Your task to perform on an android device: set default search engine in the chrome app Image 0: 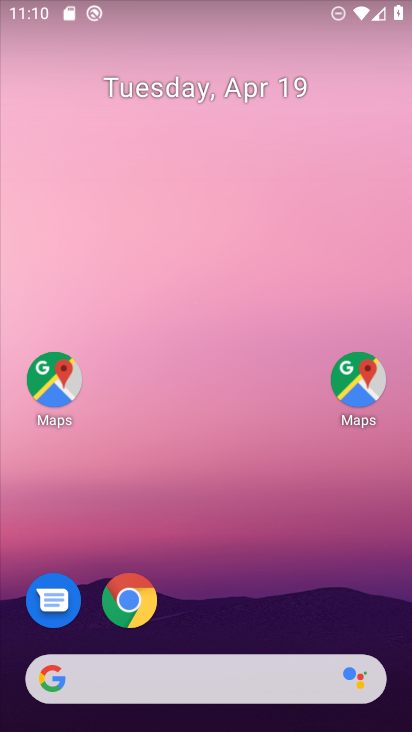
Step 0: drag from (280, 676) to (325, 2)
Your task to perform on an android device: set default search engine in the chrome app Image 1: 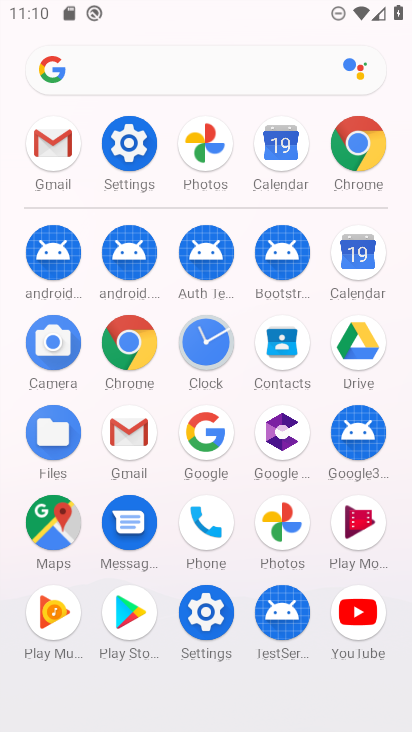
Step 1: click (144, 340)
Your task to perform on an android device: set default search engine in the chrome app Image 2: 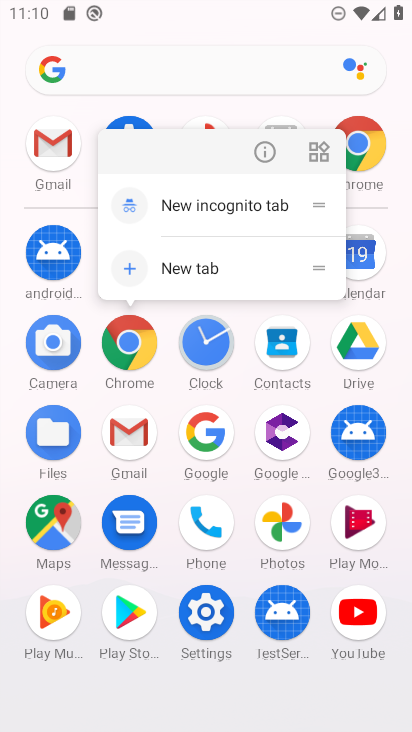
Step 2: click (141, 344)
Your task to perform on an android device: set default search engine in the chrome app Image 3: 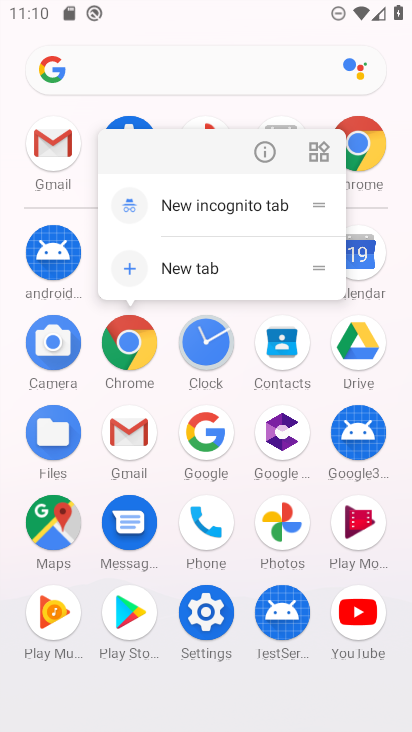
Step 3: click (115, 350)
Your task to perform on an android device: set default search engine in the chrome app Image 4: 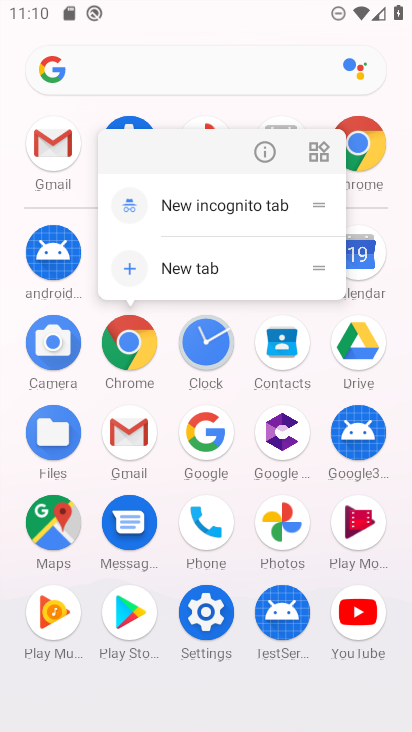
Step 4: click (115, 348)
Your task to perform on an android device: set default search engine in the chrome app Image 5: 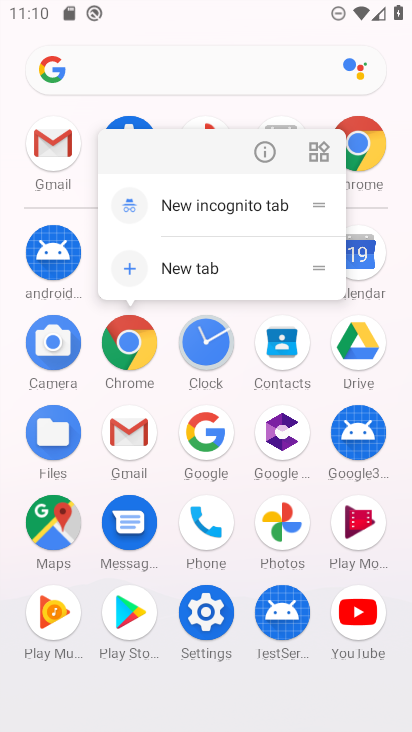
Step 5: click (126, 346)
Your task to perform on an android device: set default search engine in the chrome app Image 6: 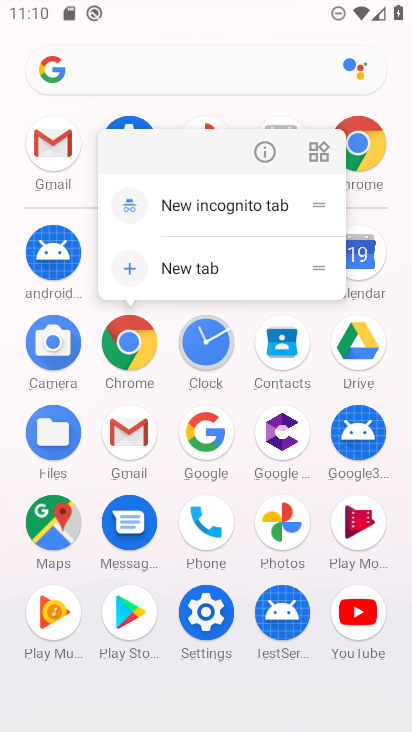
Step 6: click (126, 346)
Your task to perform on an android device: set default search engine in the chrome app Image 7: 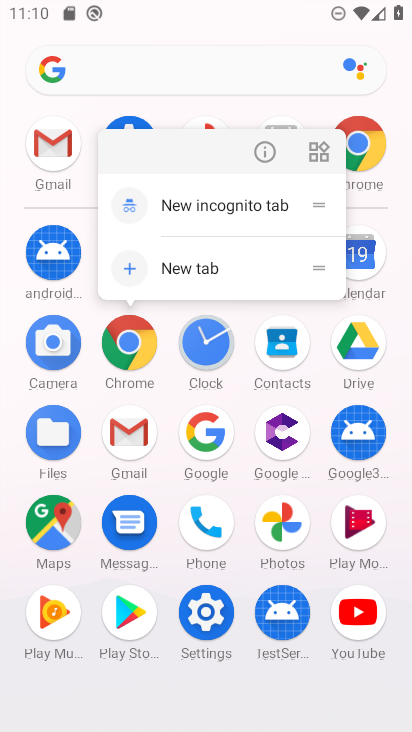
Step 7: click (126, 346)
Your task to perform on an android device: set default search engine in the chrome app Image 8: 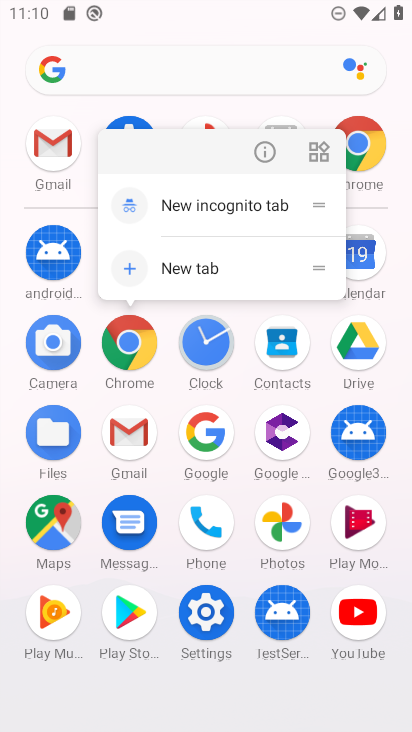
Step 8: click (126, 346)
Your task to perform on an android device: set default search engine in the chrome app Image 9: 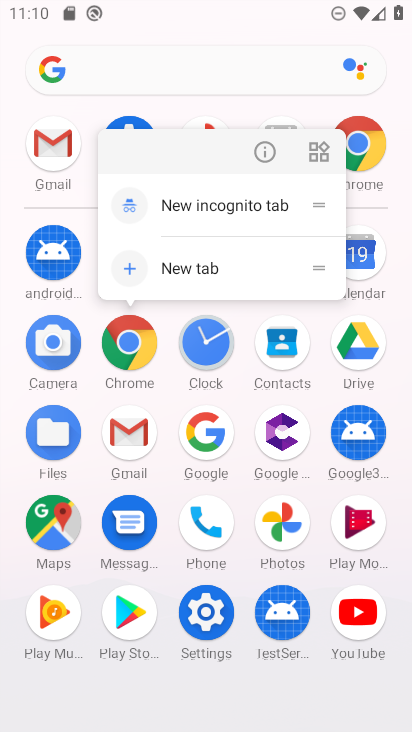
Step 9: click (136, 347)
Your task to perform on an android device: set default search engine in the chrome app Image 10: 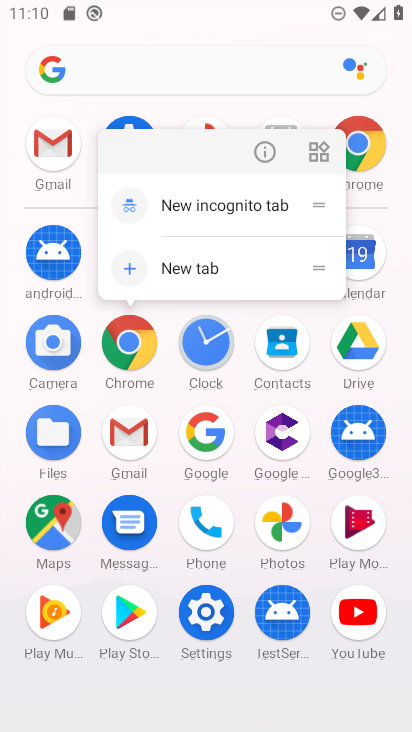
Step 10: click (136, 347)
Your task to perform on an android device: set default search engine in the chrome app Image 11: 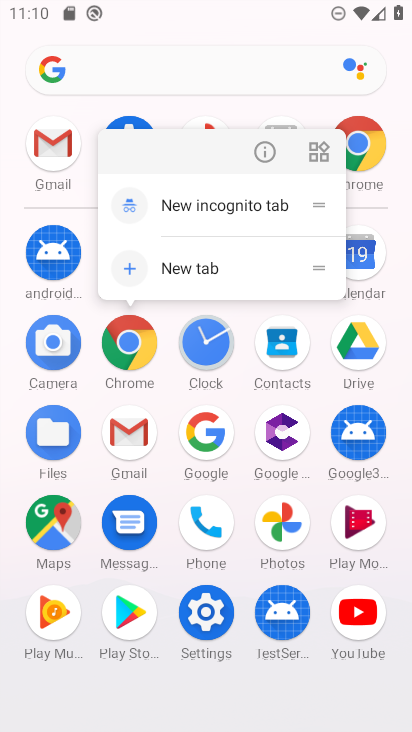
Step 11: click (136, 347)
Your task to perform on an android device: set default search engine in the chrome app Image 12: 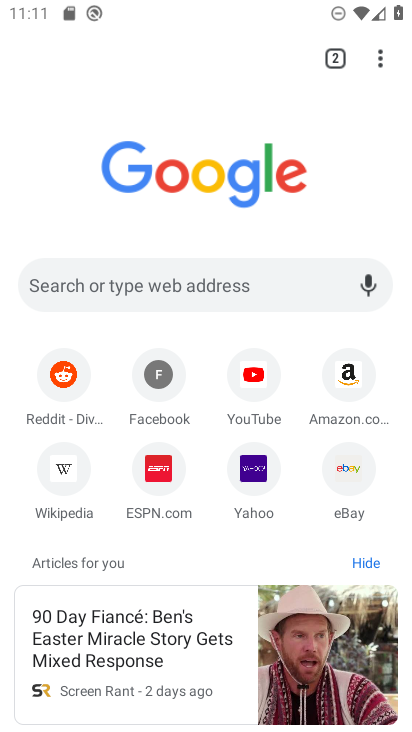
Step 12: click (387, 55)
Your task to perform on an android device: set default search engine in the chrome app Image 13: 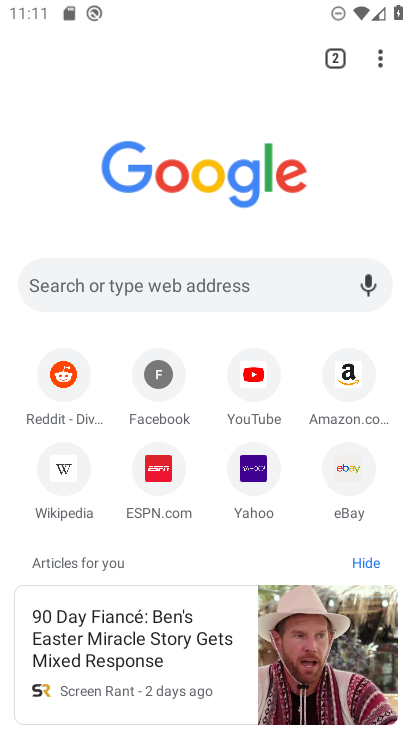
Step 13: click (367, 60)
Your task to perform on an android device: set default search engine in the chrome app Image 14: 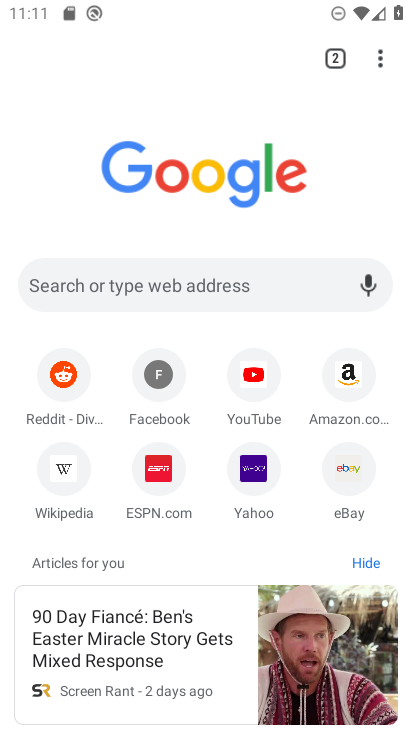
Step 14: click (373, 56)
Your task to perform on an android device: set default search engine in the chrome app Image 15: 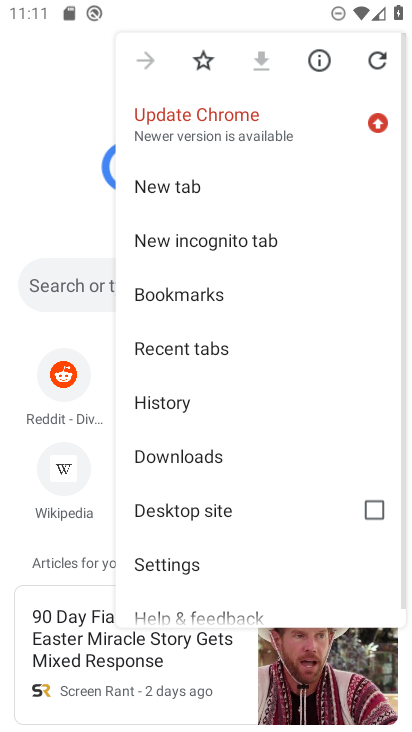
Step 15: click (242, 567)
Your task to perform on an android device: set default search engine in the chrome app Image 16: 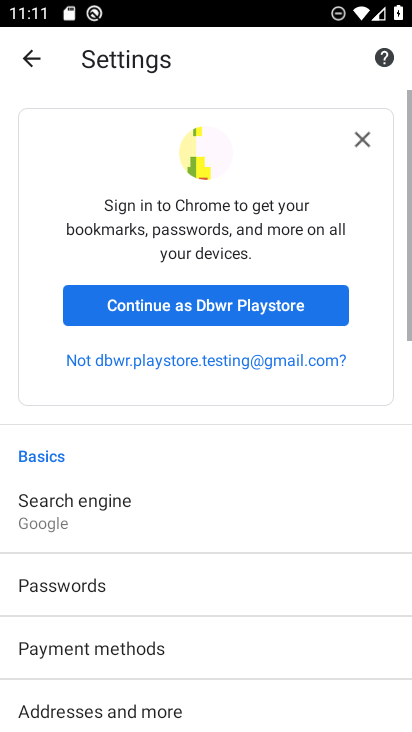
Step 16: click (200, 531)
Your task to perform on an android device: set default search engine in the chrome app Image 17: 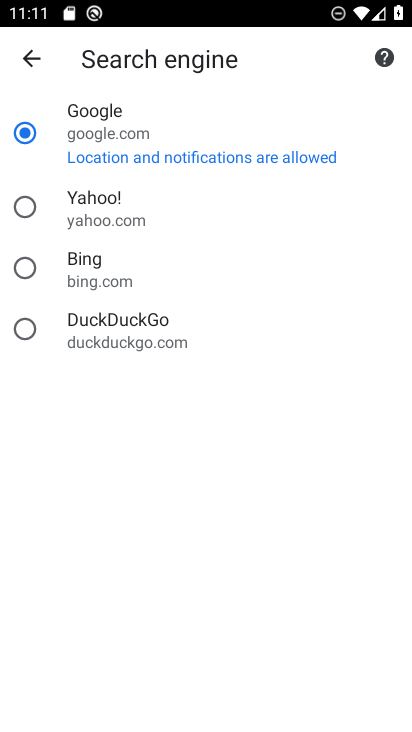
Step 17: task complete